Your task to perform on an android device: delete browsing data in the chrome app Image 0: 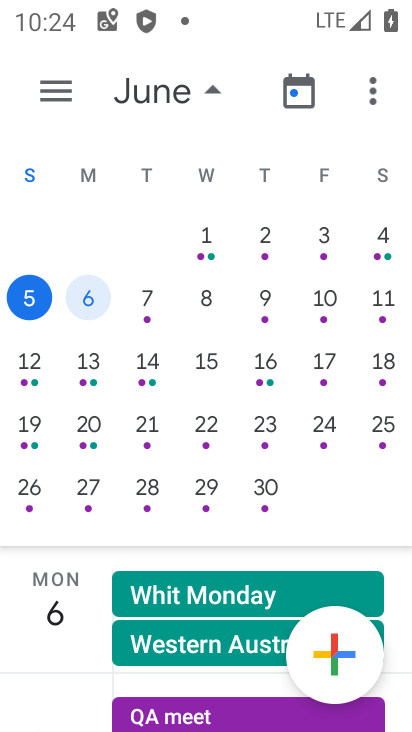
Step 0: press home button
Your task to perform on an android device: delete browsing data in the chrome app Image 1: 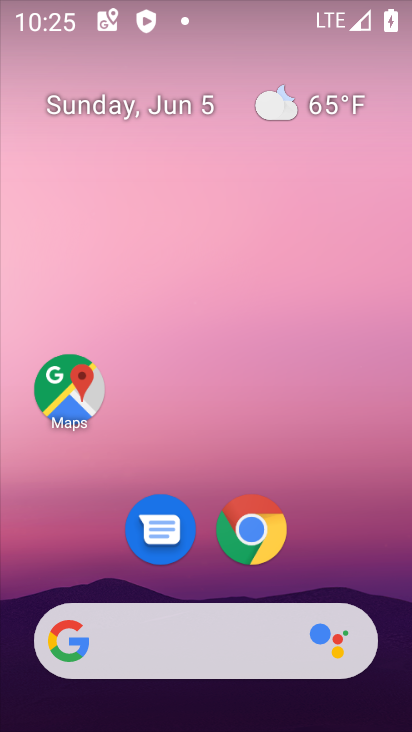
Step 1: click (228, 518)
Your task to perform on an android device: delete browsing data in the chrome app Image 2: 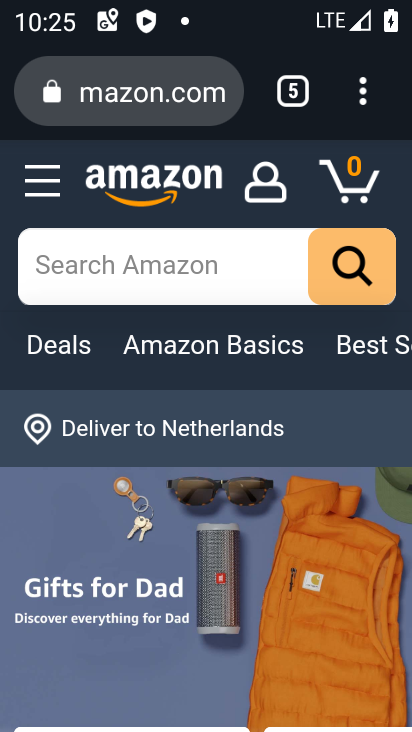
Step 2: click (375, 91)
Your task to perform on an android device: delete browsing data in the chrome app Image 3: 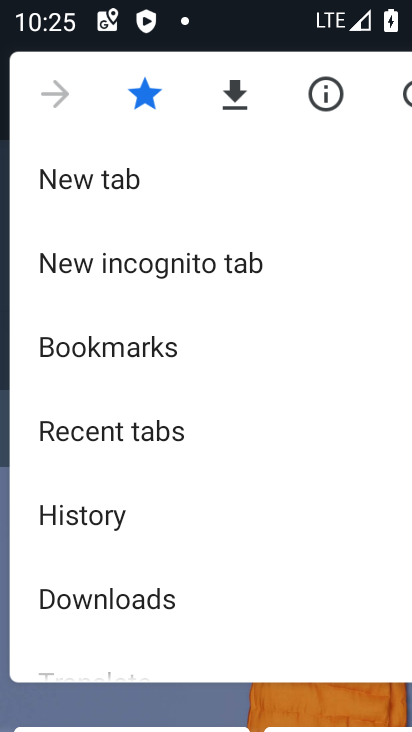
Step 3: click (119, 512)
Your task to perform on an android device: delete browsing data in the chrome app Image 4: 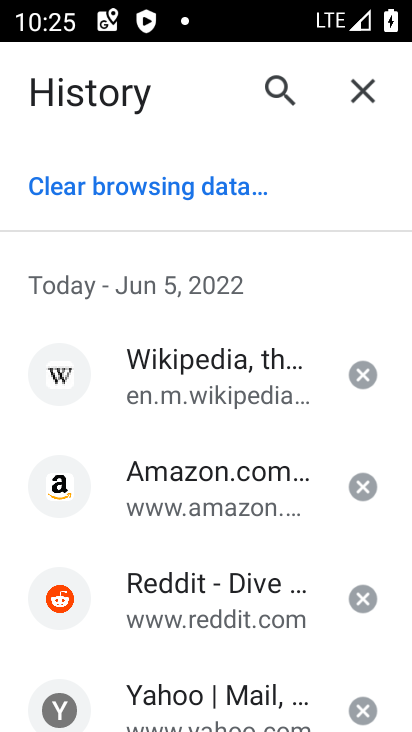
Step 4: click (228, 196)
Your task to perform on an android device: delete browsing data in the chrome app Image 5: 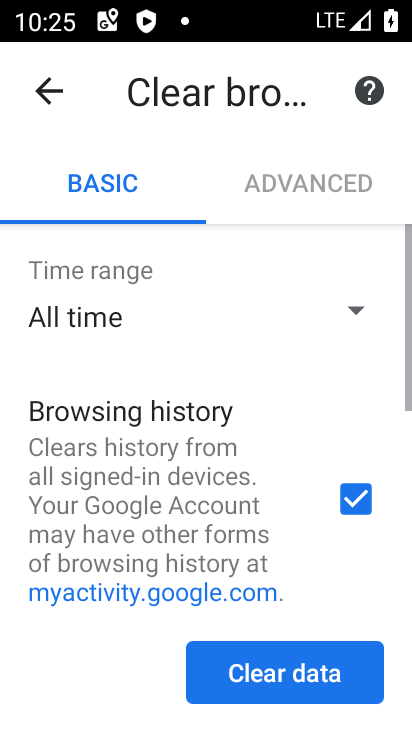
Step 5: click (273, 671)
Your task to perform on an android device: delete browsing data in the chrome app Image 6: 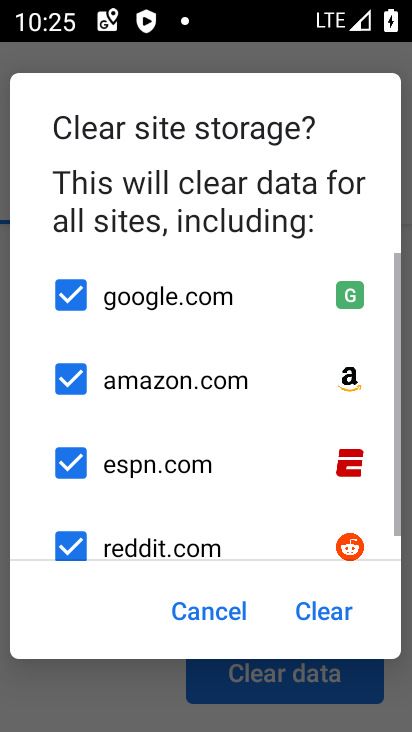
Step 6: click (329, 607)
Your task to perform on an android device: delete browsing data in the chrome app Image 7: 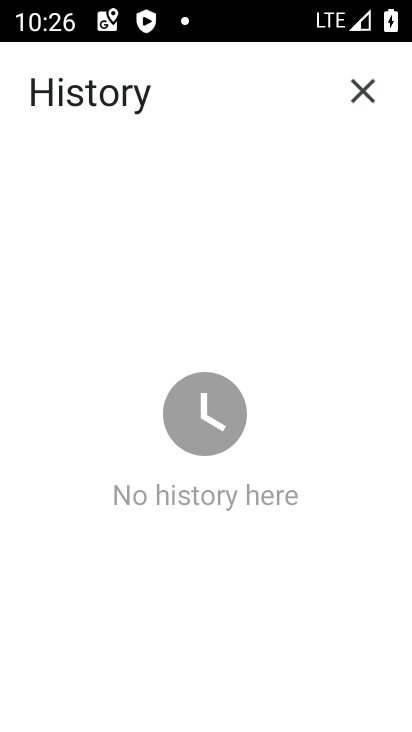
Step 7: task complete